Your task to perform on an android device: search for starred emails in the gmail app Image 0: 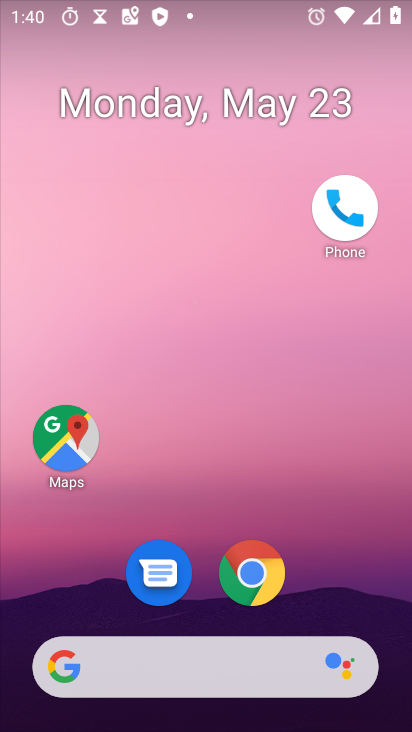
Step 0: press home button
Your task to perform on an android device: search for starred emails in the gmail app Image 1: 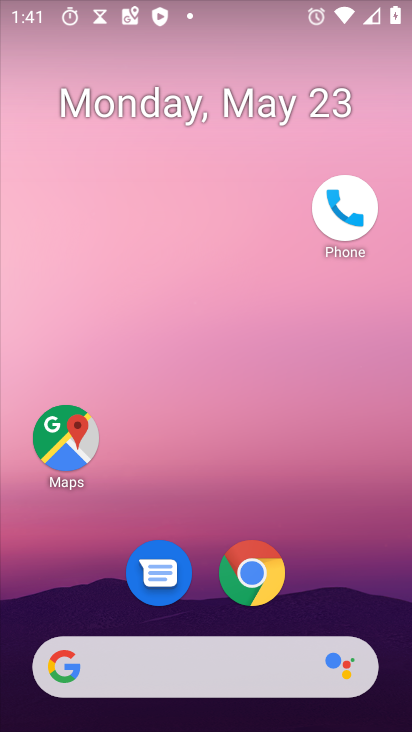
Step 1: drag from (180, 664) to (309, 96)
Your task to perform on an android device: search for starred emails in the gmail app Image 2: 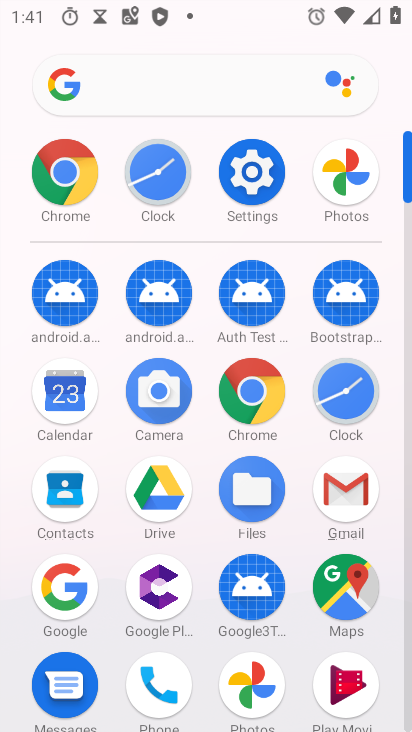
Step 2: click (345, 501)
Your task to perform on an android device: search for starred emails in the gmail app Image 3: 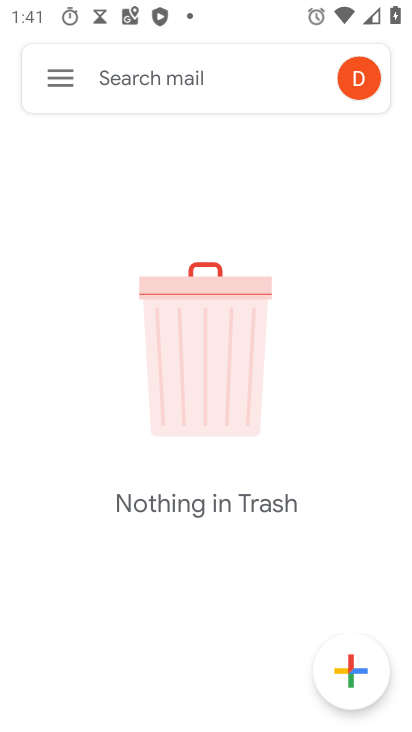
Step 3: click (49, 83)
Your task to perform on an android device: search for starred emails in the gmail app Image 4: 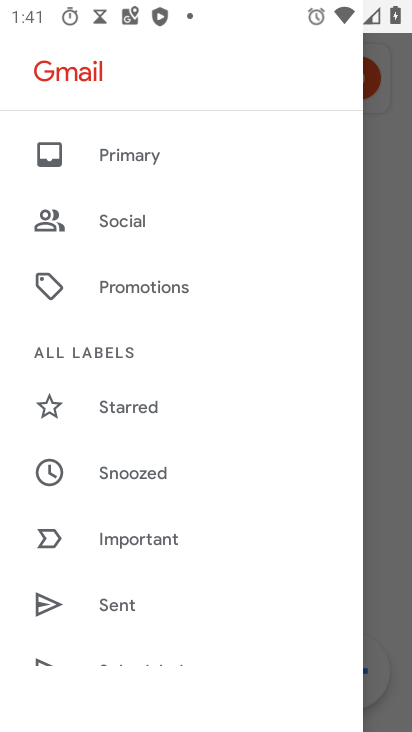
Step 4: click (135, 405)
Your task to perform on an android device: search for starred emails in the gmail app Image 5: 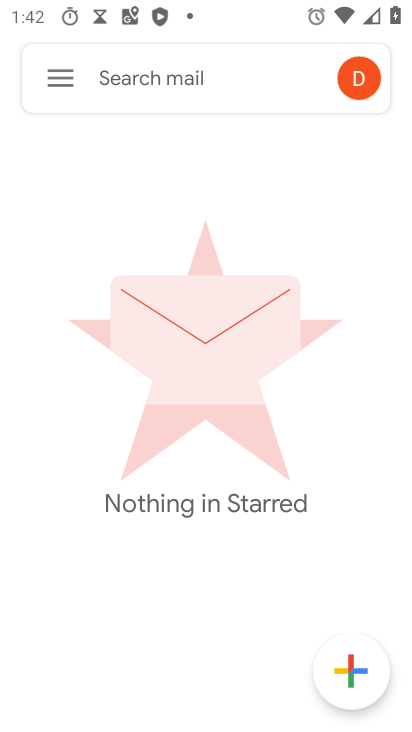
Step 5: task complete